Your task to perform on an android device: all mails in gmail Image 0: 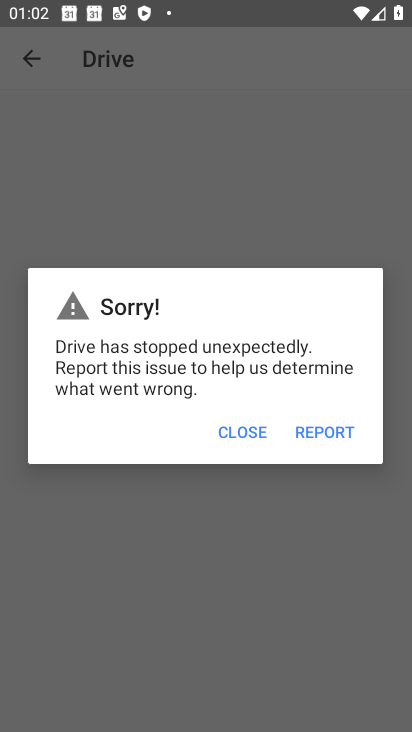
Step 0: press home button
Your task to perform on an android device: all mails in gmail Image 1: 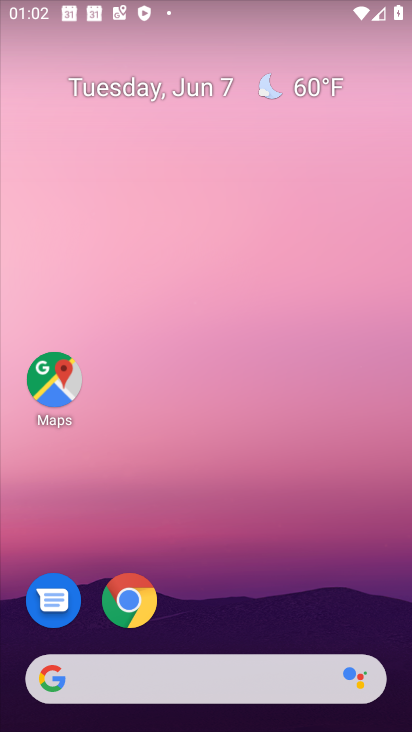
Step 1: drag from (224, 729) to (241, 186)
Your task to perform on an android device: all mails in gmail Image 2: 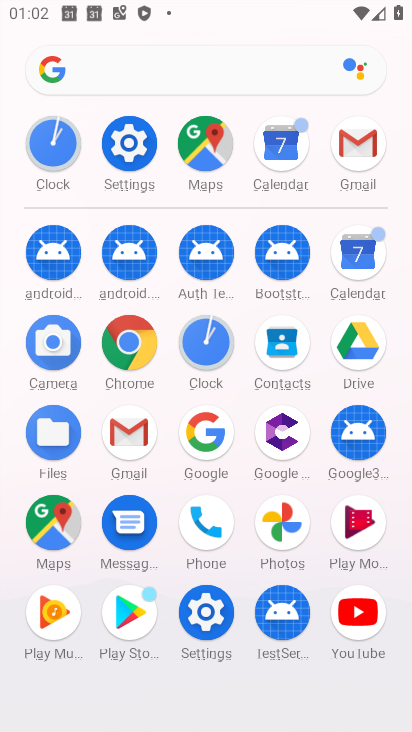
Step 2: click (120, 436)
Your task to perform on an android device: all mails in gmail Image 3: 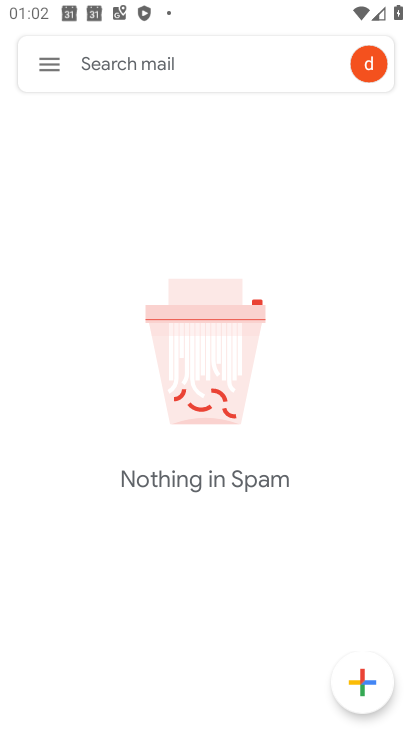
Step 3: click (47, 70)
Your task to perform on an android device: all mails in gmail Image 4: 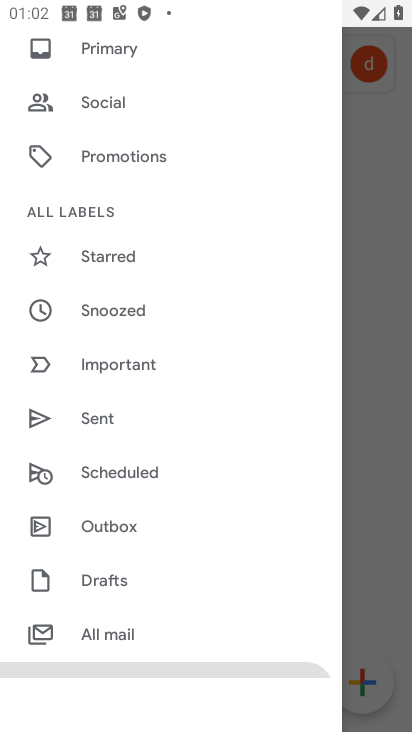
Step 4: click (86, 633)
Your task to perform on an android device: all mails in gmail Image 5: 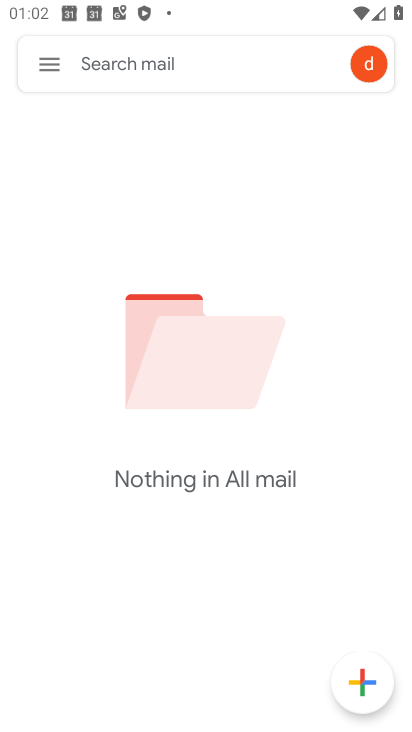
Step 5: task complete